Your task to perform on an android device: add a label to a message in the gmail app Image 0: 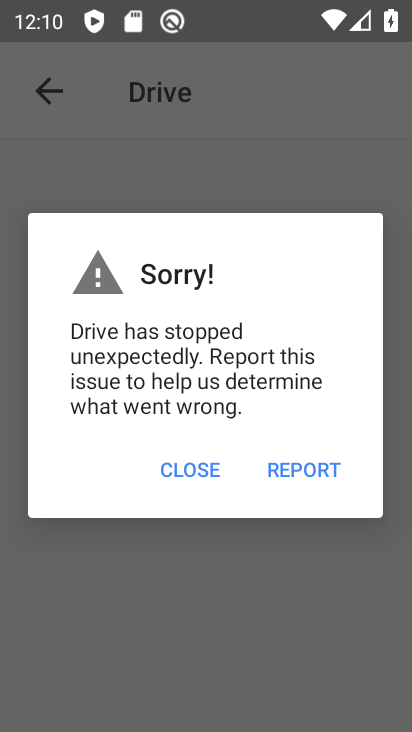
Step 0: press back button
Your task to perform on an android device: add a label to a message in the gmail app Image 1: 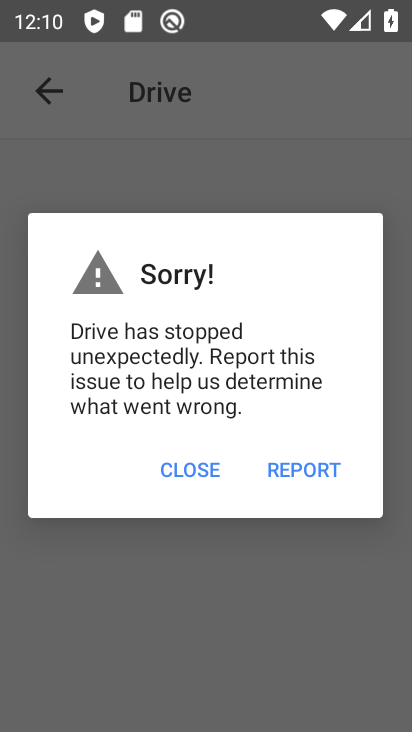
Step 1: press home button
Your task to perform on an android device: add a label to a message in the gmail app Image 2: 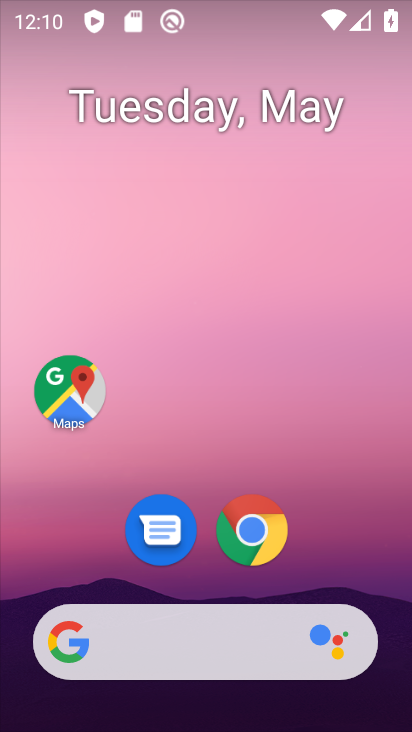
Step 2: drag from (358, 585) to (225, 19)
Your task to perform on an android device: add a label to a message in the gmail app Image 3: 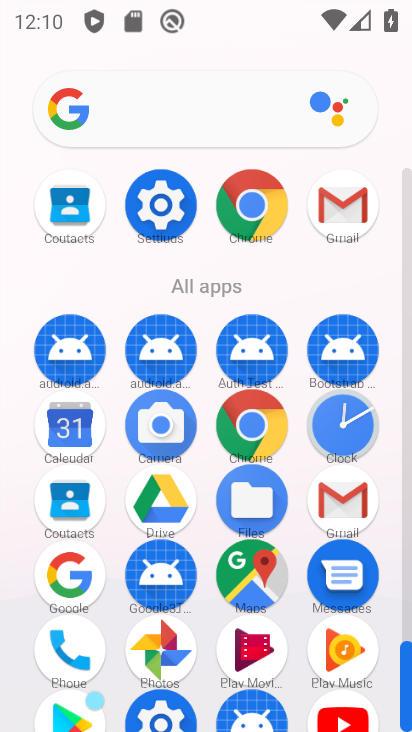
Step 3: click (340, 192)
Your task to perform on an android device: add a label to a message in the gmail app Image 4: 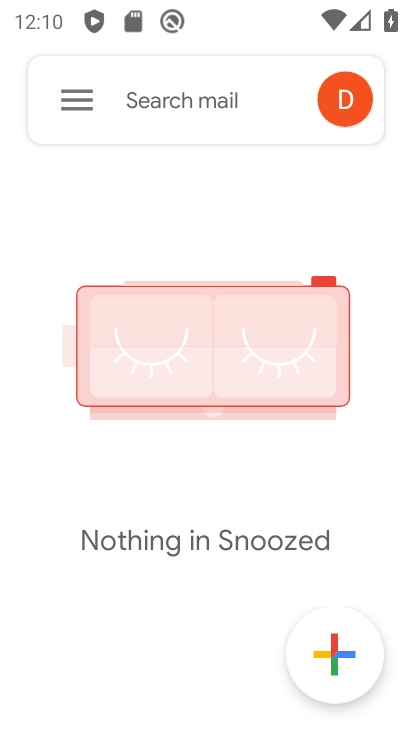
Step 4: click (52, 99)
Your task to perform on an android device: add a label to a message in the gmail app Image 5: 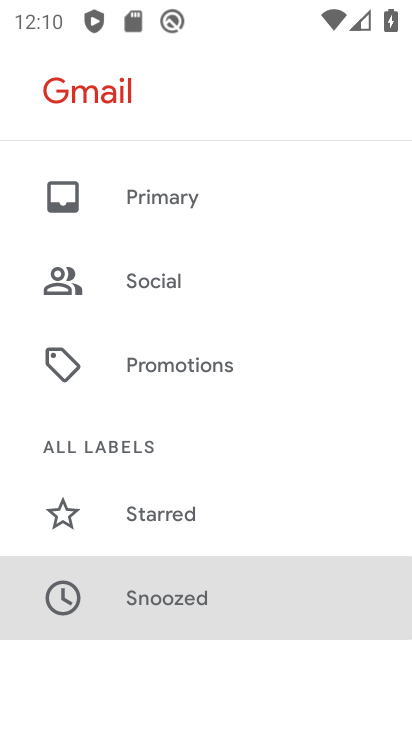
Step 5: drag from (270, 510) to (278, 109)
Your task to perform on an android device: add a label to a message in the gmail app Image 6: 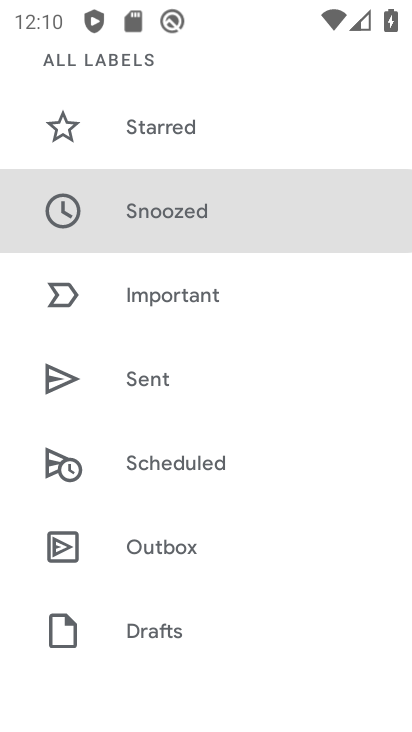
Step 6: drag from (278, 118) to (329, 655)
Your task to perform on an android device: add a label to a message in the gmail app Image 7: 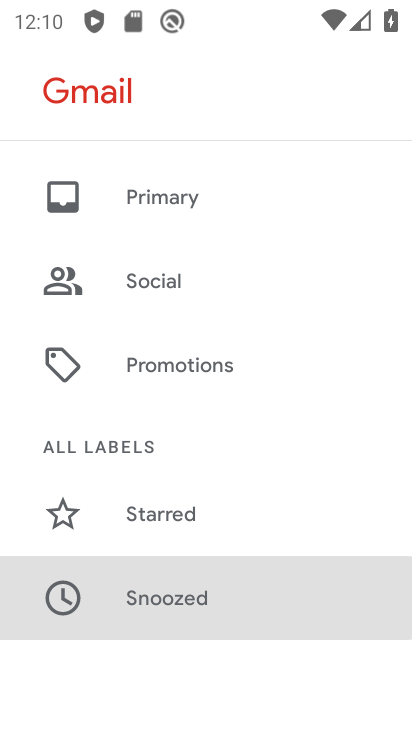
Step 7: click (178, 195)
Your task to perform on an android device: add a label to a message in the gmail app Image 8: 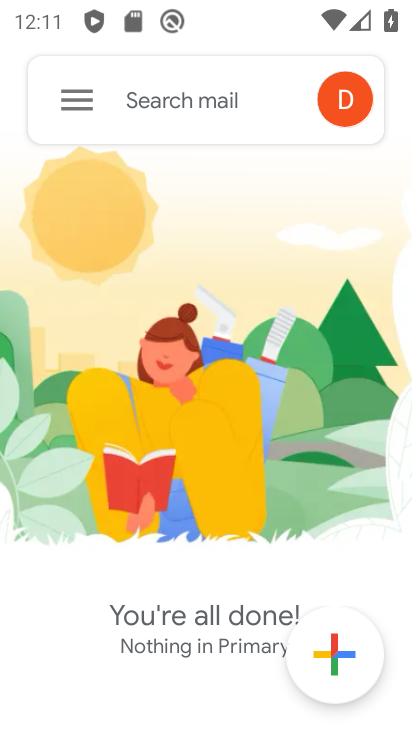
Step 8: click (80, 86)
Your task to perform on an android device: add a label to a message in the gmail app Image 9: 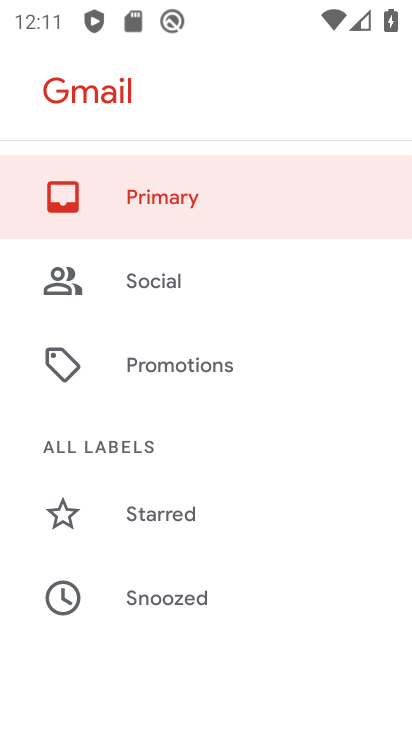
Step 9: click (156, 281)
Your task to perform on an android device: add a label to a message in the gmail app Image 10: 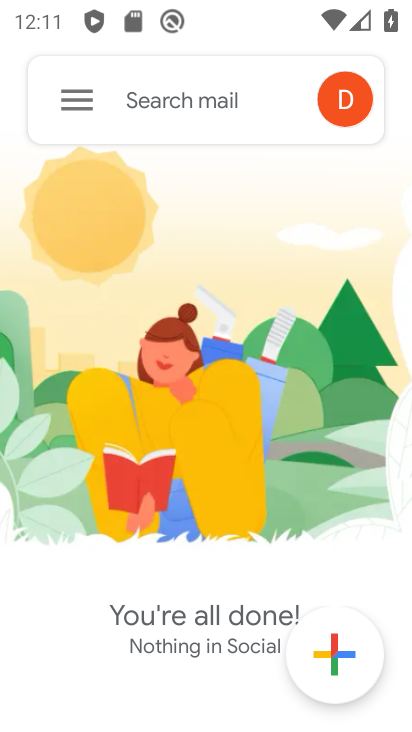
Step 10: click (69, 92)
Your task to perform on an android device: add a label to a message in the gmail app Image 11: 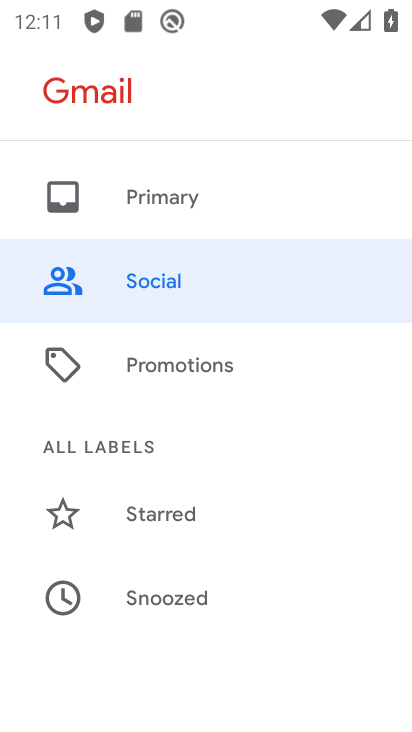
Step 11: click (198, 588)
Your task to perform on an android device: add a label to a message in the gmail app Image 12: 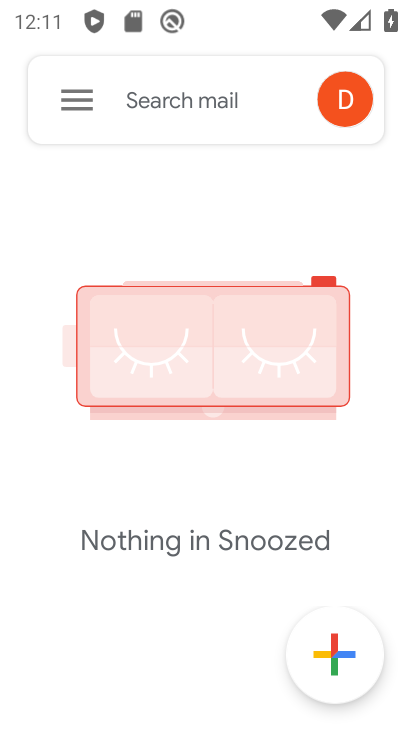
Step 12: click (71, 97)
Your task to perform on an android device: add a label to a message in the gmail app Image 13: 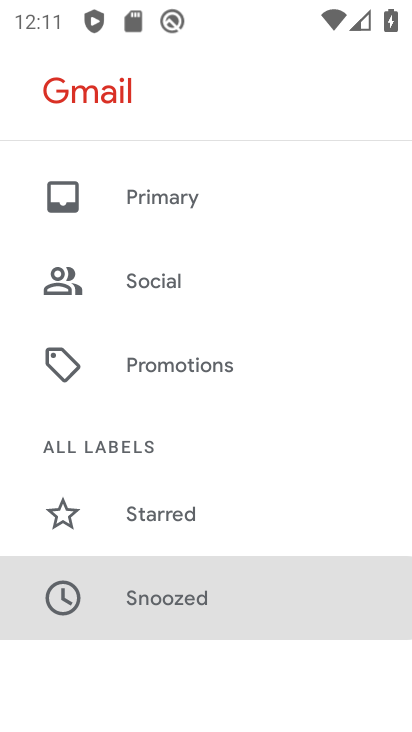
Step 13: drag from (317, 562) to (285, 106)
Your task to perform on an android device: add a label to a message in the gmail app Image 14: 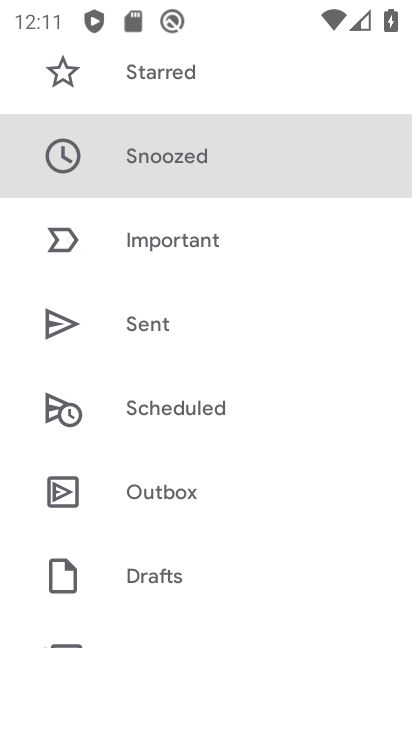
Step 14: drag from (217, 534) to (242, 245)
Your task to perform on an android device: add a label to a message in the gmail app Image 15: 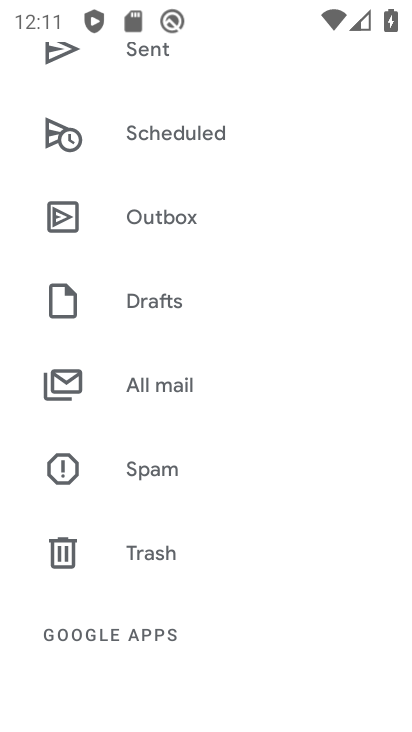
Step 15: click (171, 383)
Your task to perform on an android device: add a label to a message in the gmail app Image 16: 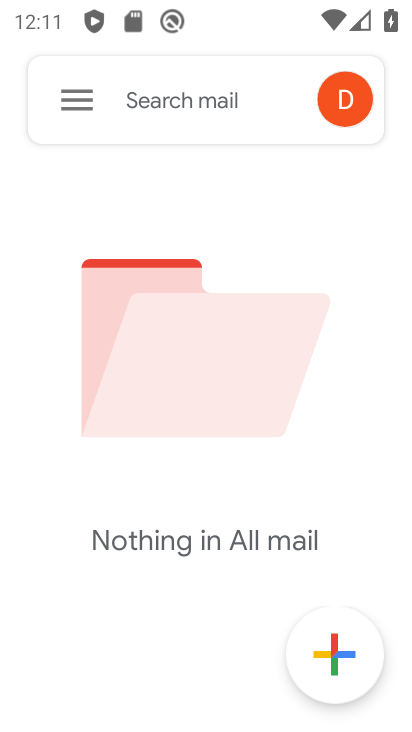
Step 16: click (66, 87)
Your task to perform on an android device: add a label to a message in the gmail app Image 17: 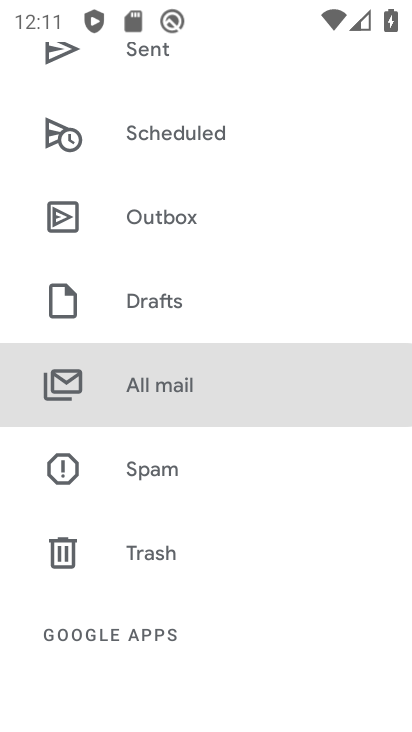
Step 17: drag from (340, 156) to (314, 638)
Your task to perform on an android device: add a label to a message in the gmail app Image 18: 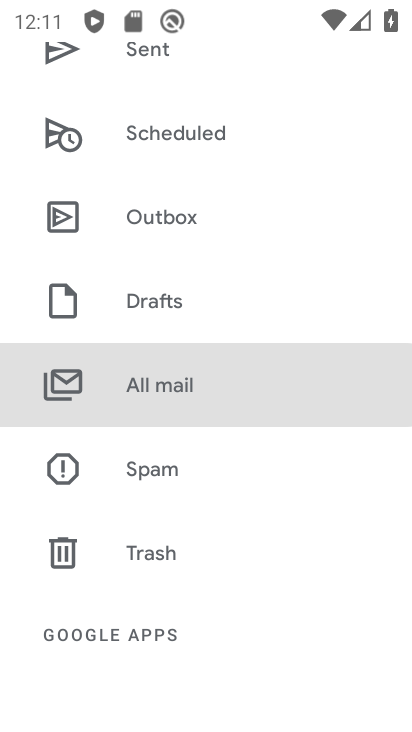
Step 18: drag from (355, 173) to (297, 527)
Your task to perform on an android device: add a label to a message in the gmail app Image 19: 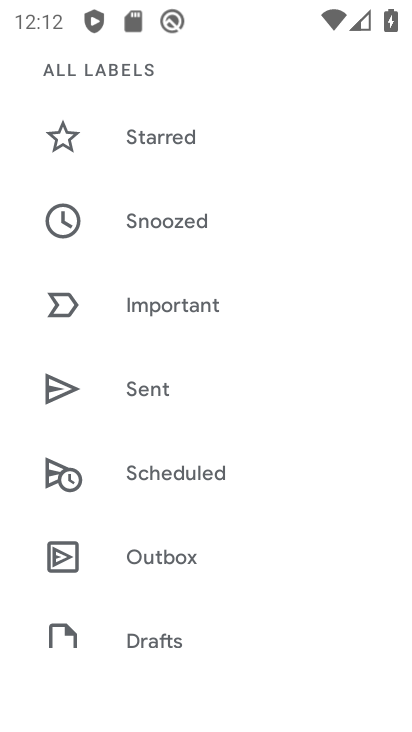
Step 19: click (183, 213)
Your task to perform on an android device: add a label to a message in the gmail app Image 20: 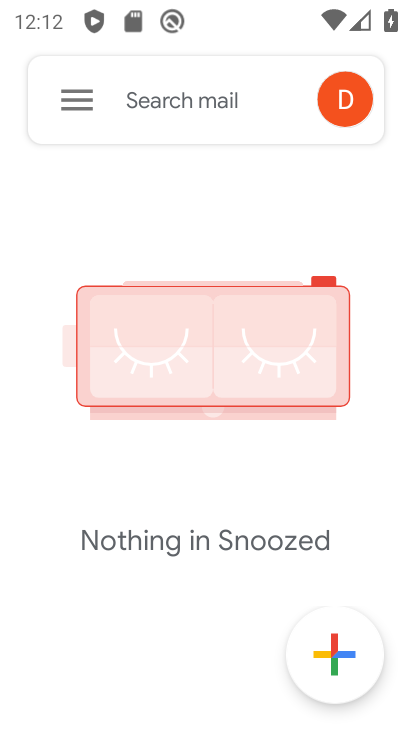
Step 20: task complete